Your task to perform on an android device: Open eBay Image 0: 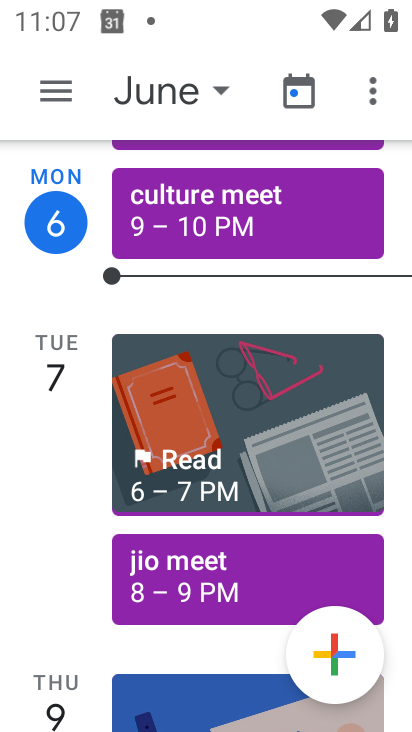
Step 0: press home button
Your task to perform on an android device: Open eBay Image 1: 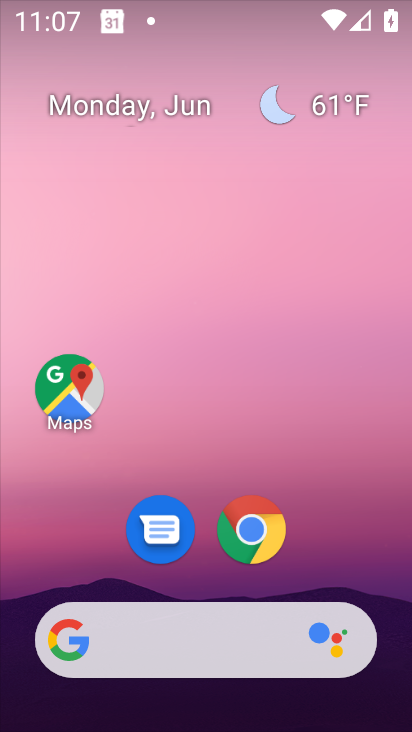
Step 1: click (250, 540)
Your task to perform on an android device: Open eBay Image 2: 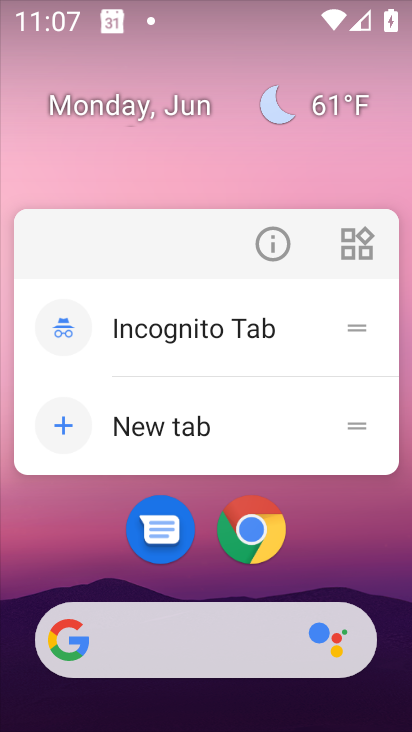
Step 2: click (259, 532)
Your task to perform on an android device: Open eBay Image 3: 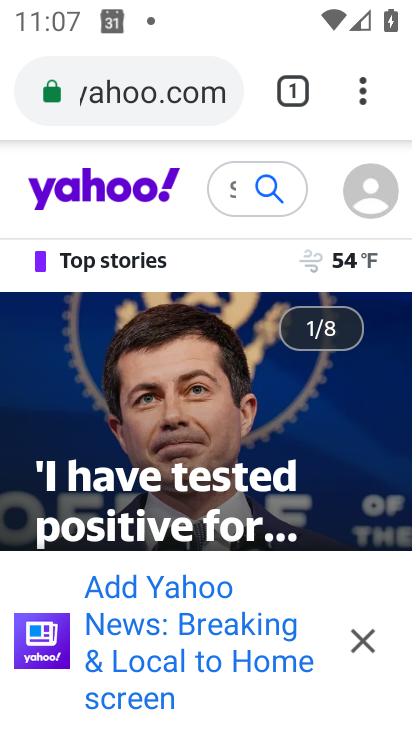
Step 3: drag from (362, 98) to (331, 189)
Your task to perform on an android device: Open eBay Image 4: 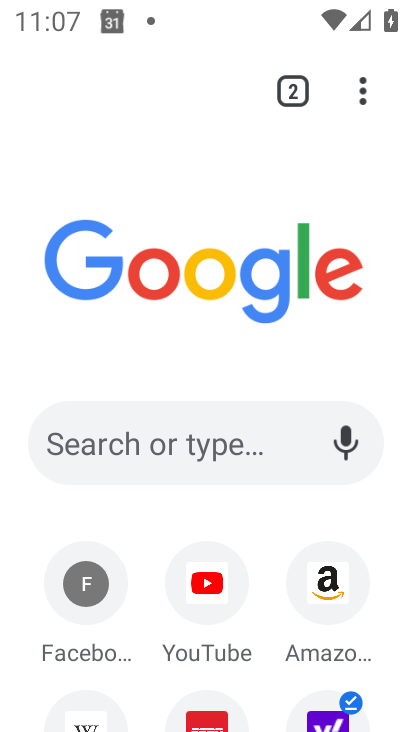
Step 4: click (195, 457)
Your task to perform on an android device: Open eBay Image 5: 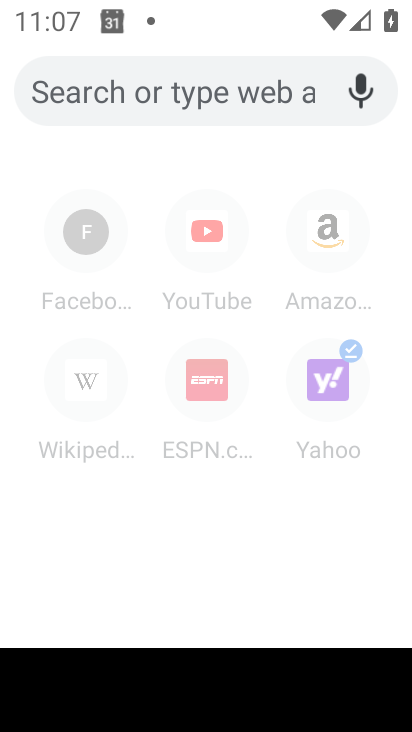
Step 5: type "eBay"
Your task to perform on an android device: Open eBay Image 6: 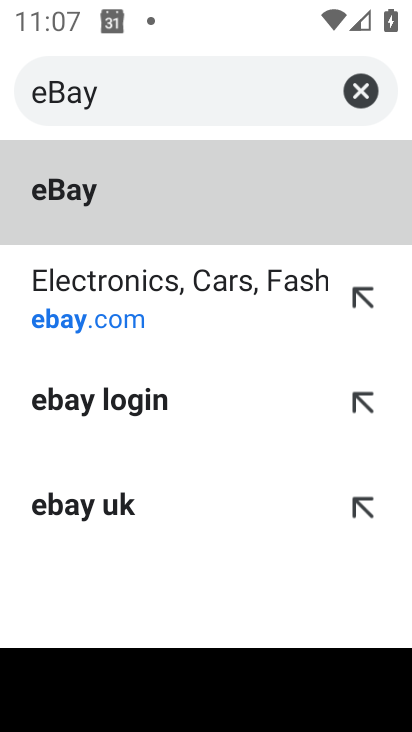
Step 6: click (129, 283)
Your task to perform on an android device: Open eBay Image 7: 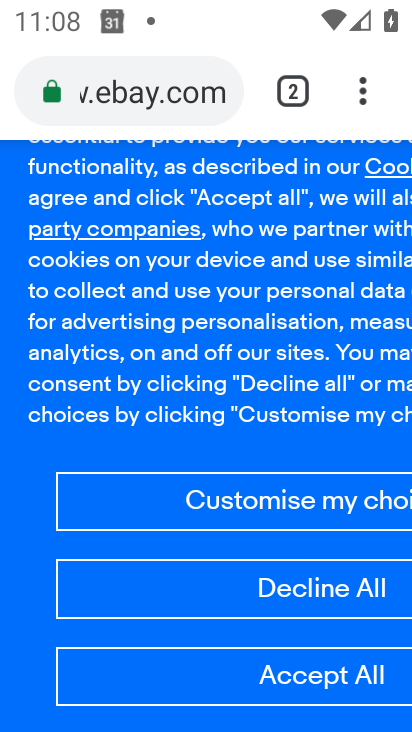
Step 7: click (244, 658)
Your task to perform on an android device: Open eBay Image 8: 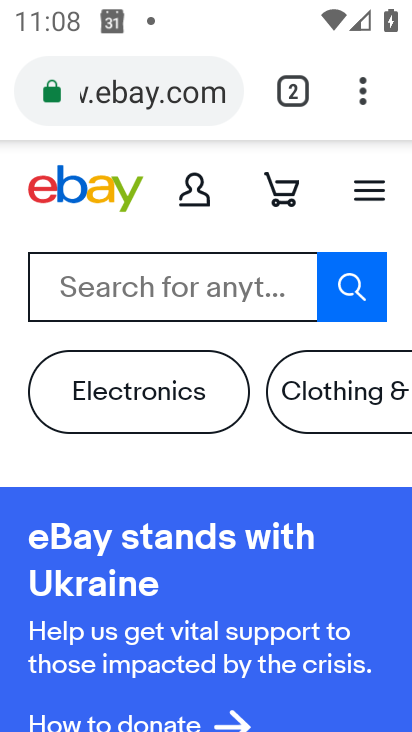
Step 8: task complete